Your task to perform on an android device: Do I have any events this weekend? Image 0: 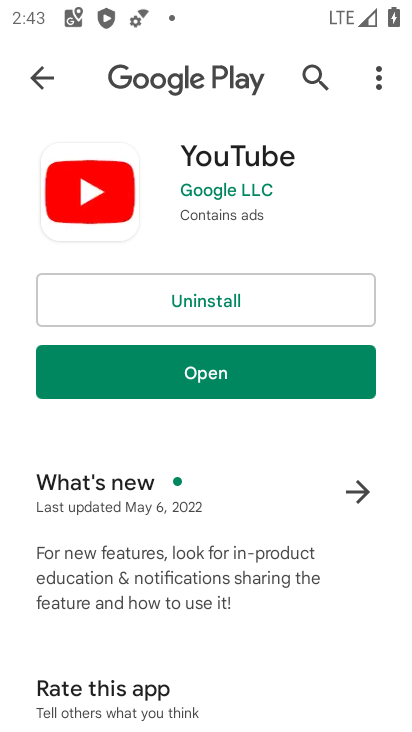
Step 0: press home button
Your task to perform on an android device: Do I have any events this weekend? Image 1: 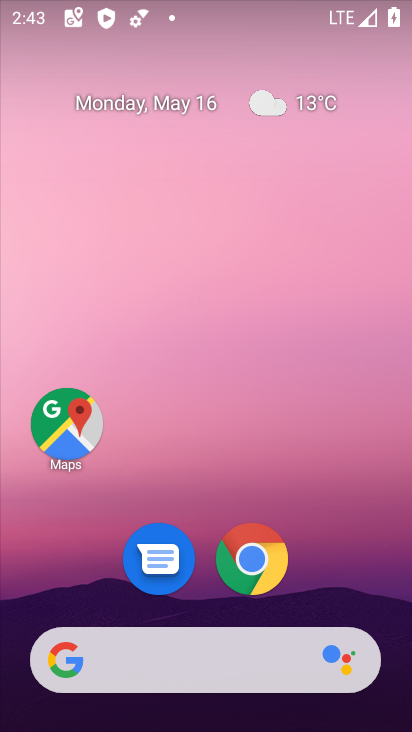
Step 1: drag from (169, 610) to (266, 119)
Your task to perform on an android device: Do I have any events this weekend? Image 2: 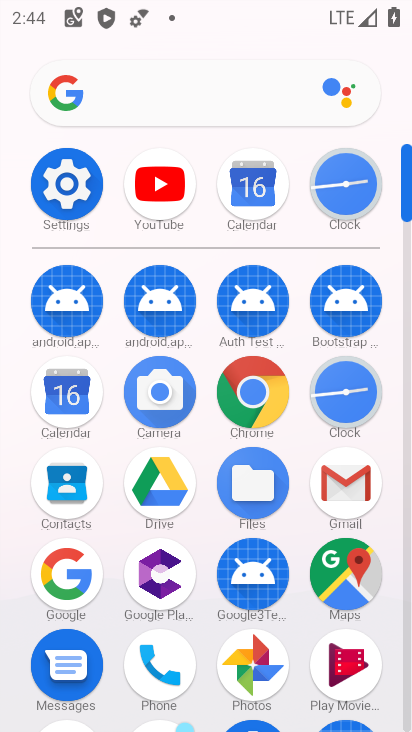
Step 2: click (67, 392)
Your task to perform on an android device: Do I have any events this weekend? Image 3: 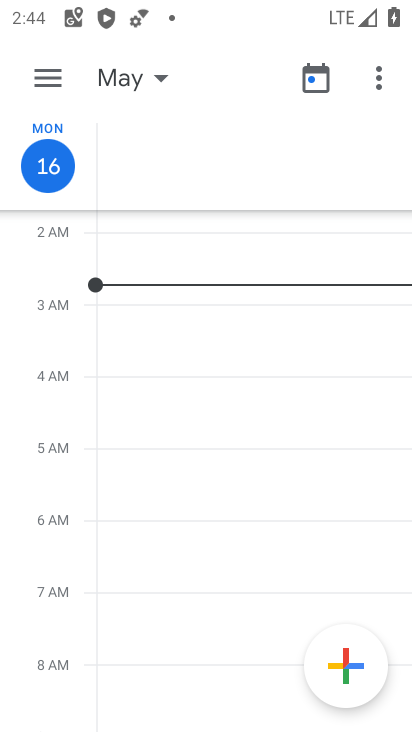
Step 3: click (53, 65)
Your task to perform on an android device: Do I have any events this weekend? Image 4: 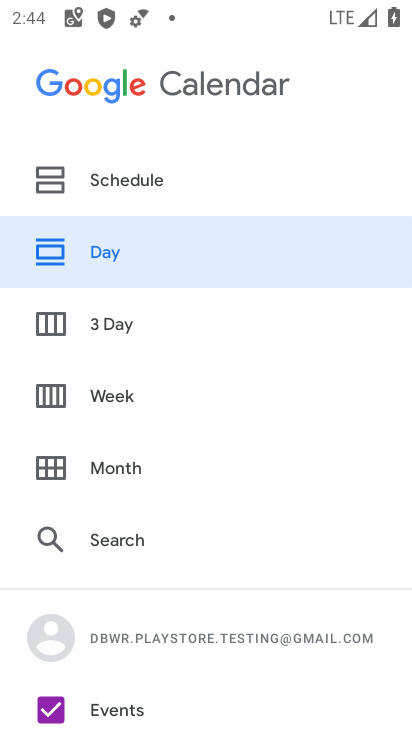
Step 4: click (105, 186)
Your task to perform on an android device: Do I have any events this weekend? Image 5: 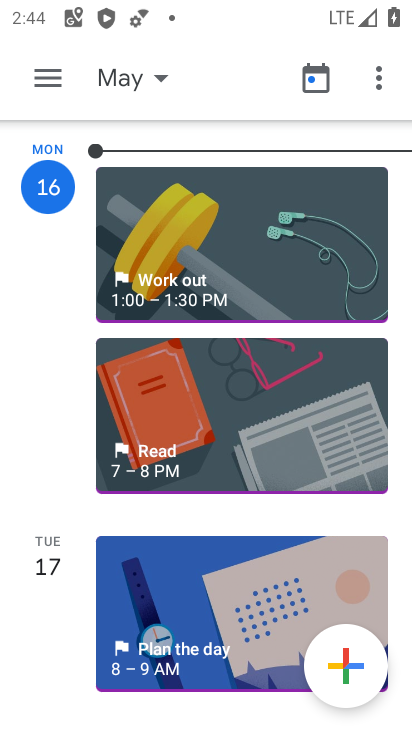
Step 5: drag from (145, 569) to (243, 137)
Your task to perform on an android device: Do I have any events this weekend? Image 6: 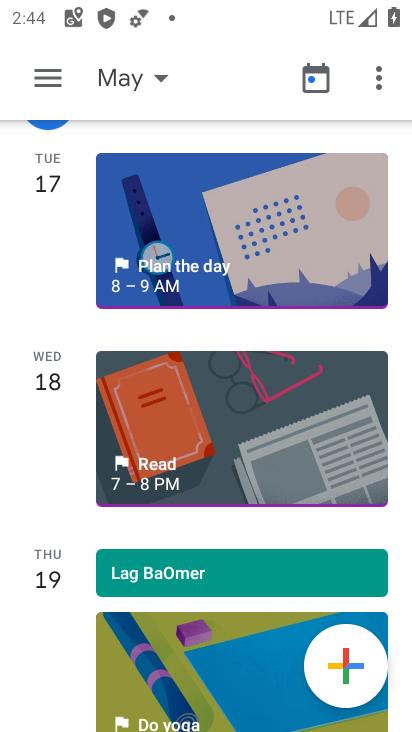
Step 6: drag from (174, 632) to (320, 96)
Your task to perform on an android device: Do I have any events this weekend? Image 7: 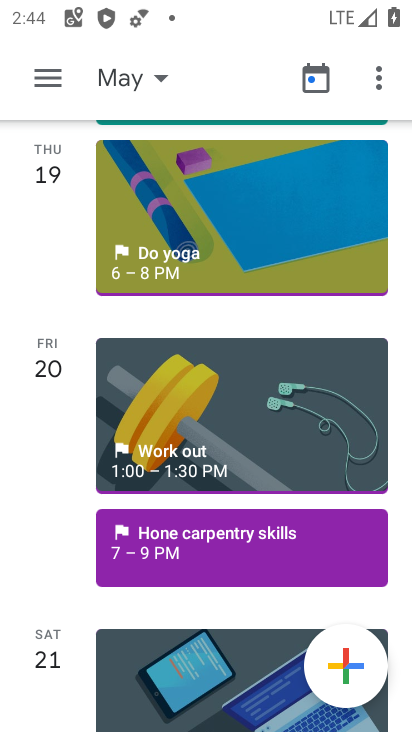
Step 7: drag from (168, 602) to (297, 144)
Your task to perform on an android device: Do I have any events this weekend? Image 8: 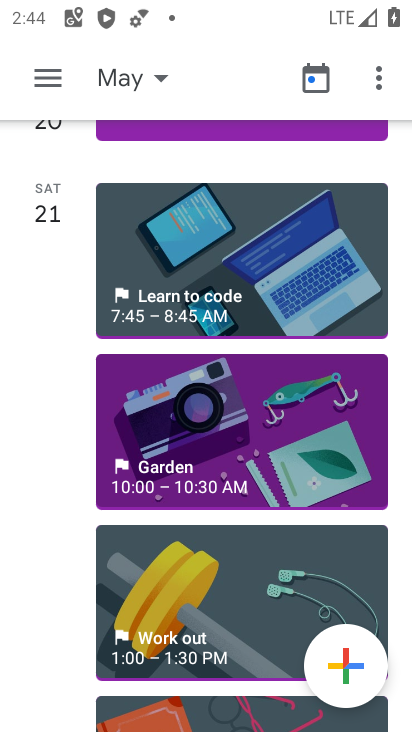
Step 8: drag from (205, 594) to (218, 559)
Your task to perform on an android device: Do I have any events this weekend? Image 9: 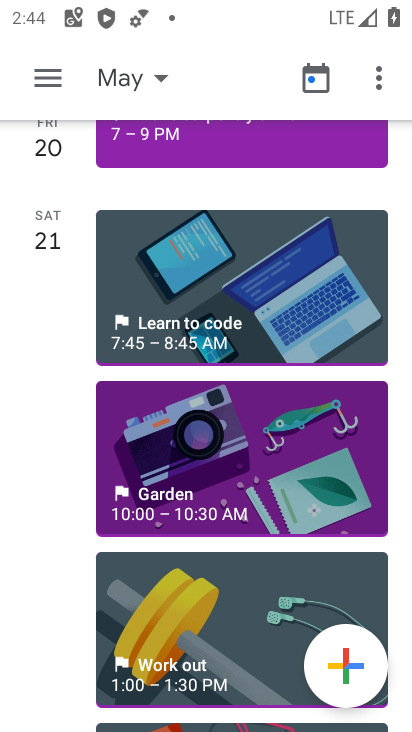
Step 9: click (209, 652)
Your task to perform on an android device: Do I have any events this weekend? Image 10: 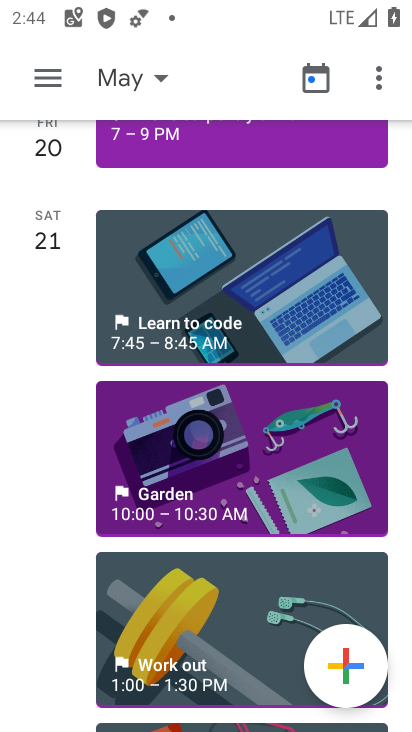
Step 10: click (178, 648)
Your task to perform on an android device: Do I have any events this weekend? Image 11: 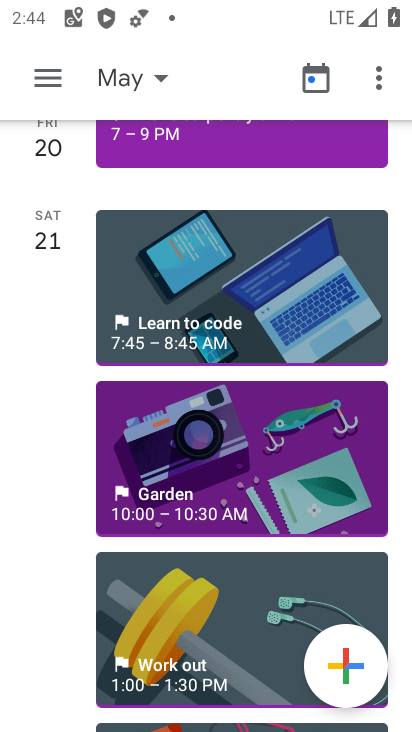
Step 11: drag from (213, 608) to (336, 125)
Your task to perform on an android device: Do I have any events this weekend? Image 12: 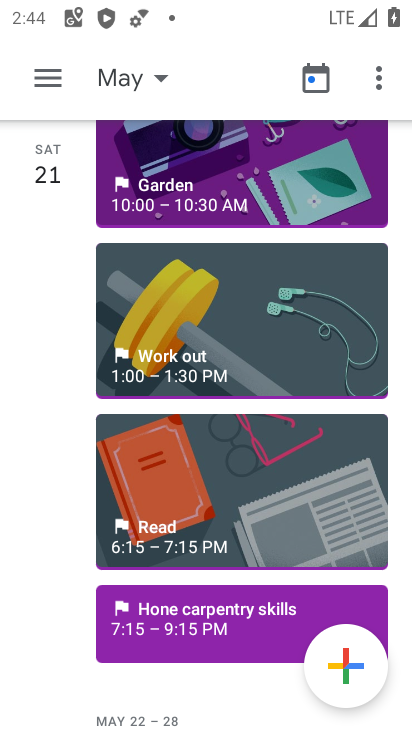
Step 12: click (161, 512)
Your task to perform on an android device: Do I have any events this weekend? Image 13: 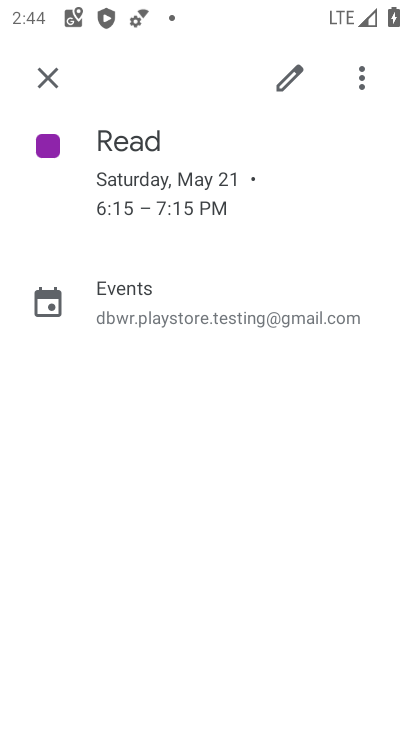
Step 13: task complete